Your task to perform on an android device: stop showing notifications on the lock screen Image 0: 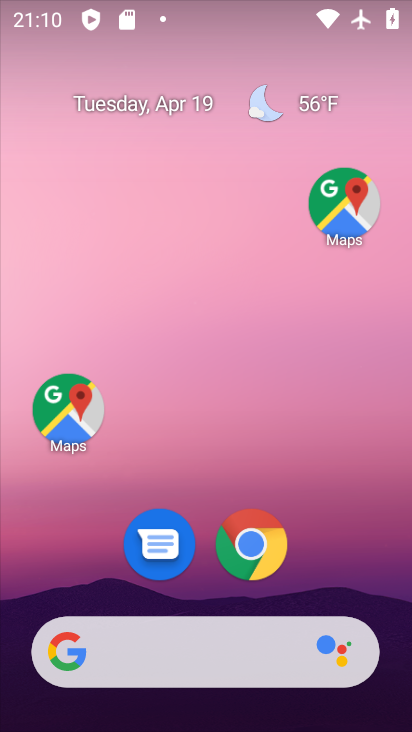
Step 0: drag from (128, 614) to (261, 63)
Your task to perform on an android device: stop showing notifications on the lock screen Image 1: 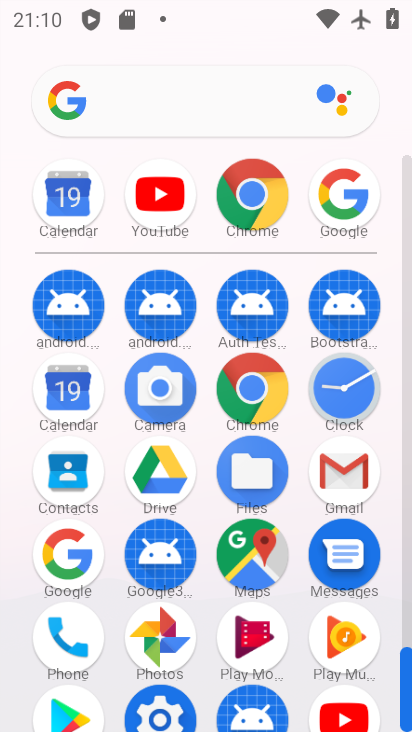
Step 1: drag from (107, 664) to (291, 170)
Your task to perform on an android device: stop showing notifications on the lock screen Image 2: 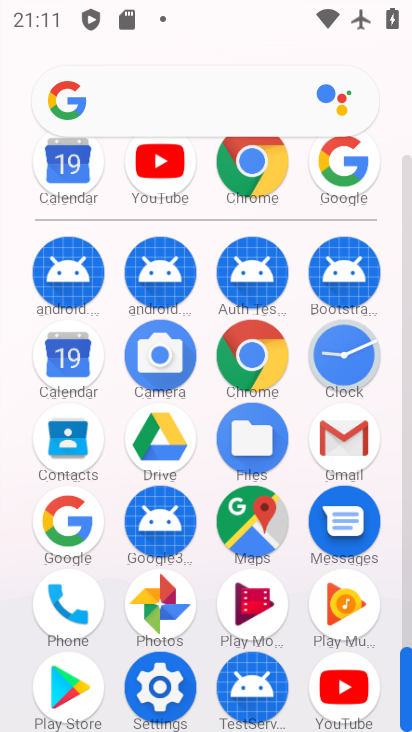
Step 2: click (154, 686)
Your task to perform on an android device: stop showing notifications on the lock screen Image 3: 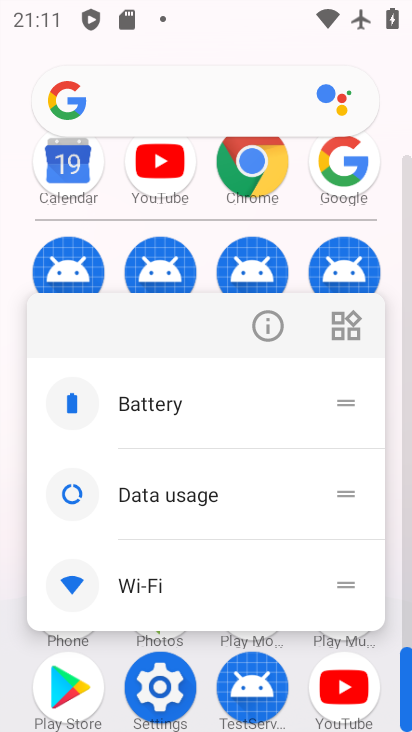
Step 3: click (159, 686)
Your task to perform on an android device: stop showing notifications on the lock screen Image 4: 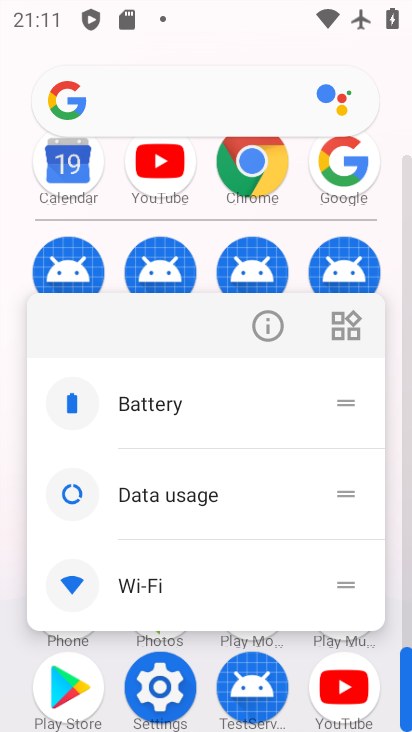
Step 4: click (163, 693)
Your task to perform on an android device: stop showing notifications on the lock screen Image 5: 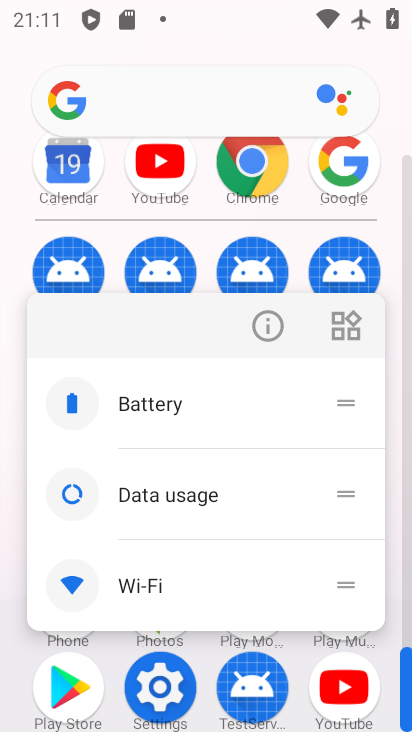
Step 5: click (162, 686)
Your task to perform on an android device: stop showing notifications on the lock screen Image 6: 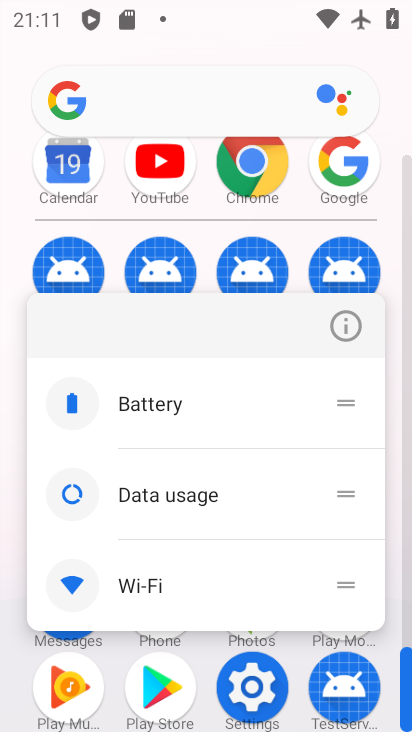
Step 6: click (247, 688)
Your task to perform on an android device: stop showing notifications on the lock screen Image 7: 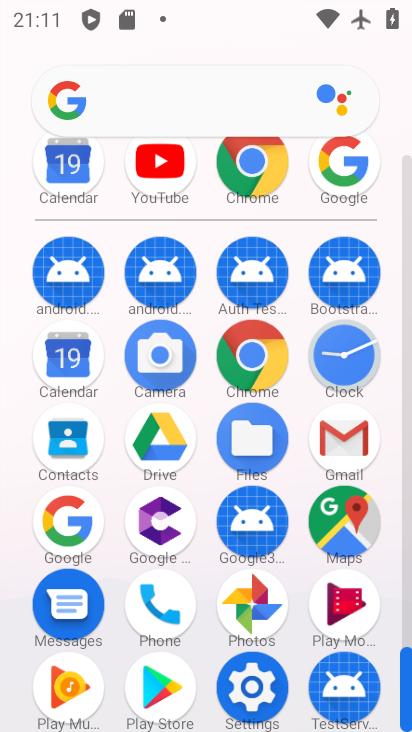
Step 7: click (251, 689)
Your task to perform on an android device: stop showing notifications on the lock screen Image 8: 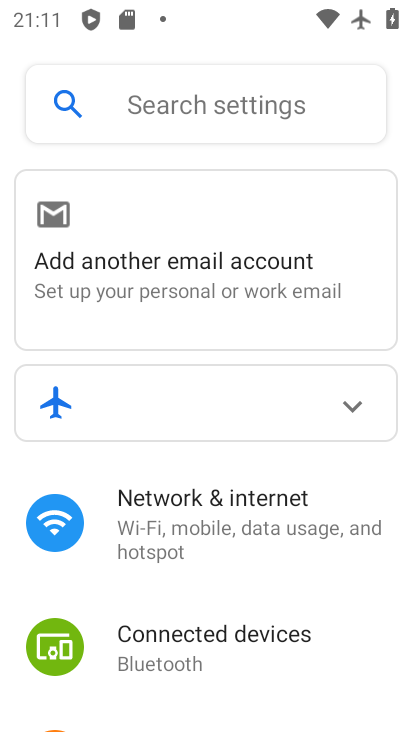
Step 8: drag from (165, 610) to (296, 150)
Your task to perform on an android device: stop showing notifications on the lock screen Image 9: 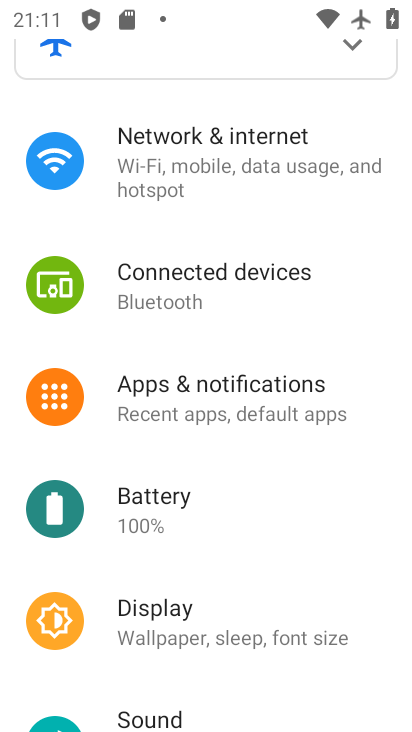
Step 9: click (234, 380)
Your task to perform on an android device: stop showing notifications on the lock screen Image 10: 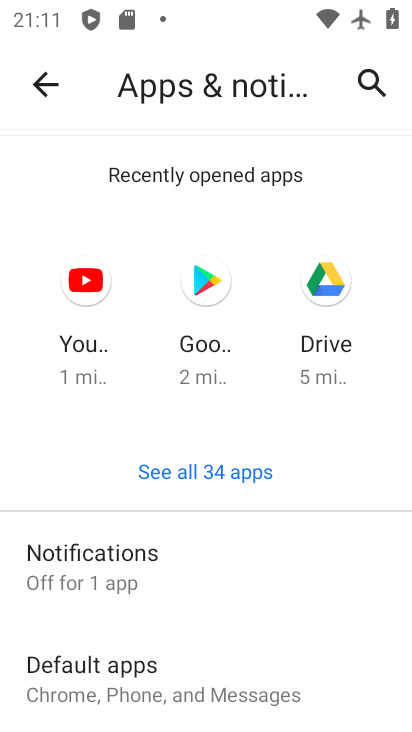
Step 10: drag from (200, 597) to (328, 175)
Your task to perform on an android device: stop showing notifications on the lock screen Image 11: 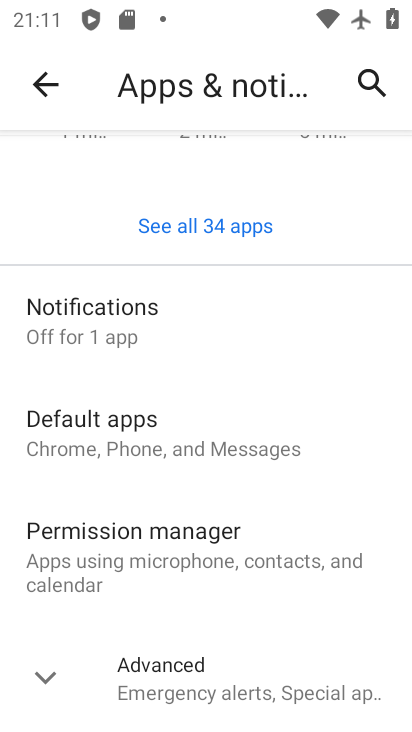
Step 11: click (123, 308)
Your task to perform on an android device: stop showing notifications on the lock screen Image 12: 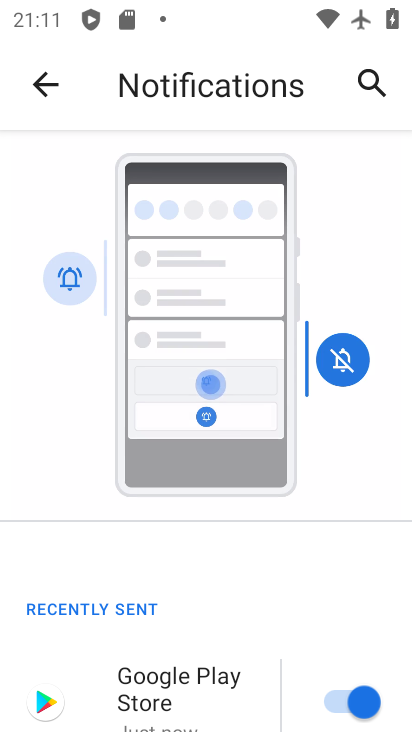
Step 12: drag from (200, 636) to (377, 116)
Your task to perform on an android device: stop showing notifications on the lock screen Image 13: 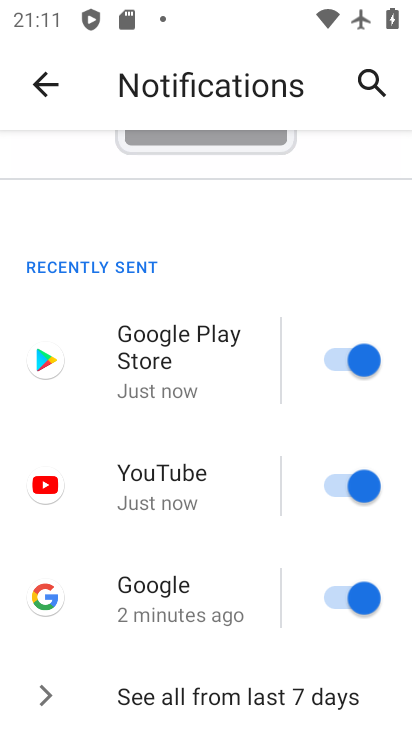
Step 13: drag from (251, 554) to (367, 135)
Your task to perform on an android device: stop showing notifications on the lock screen Image 14: 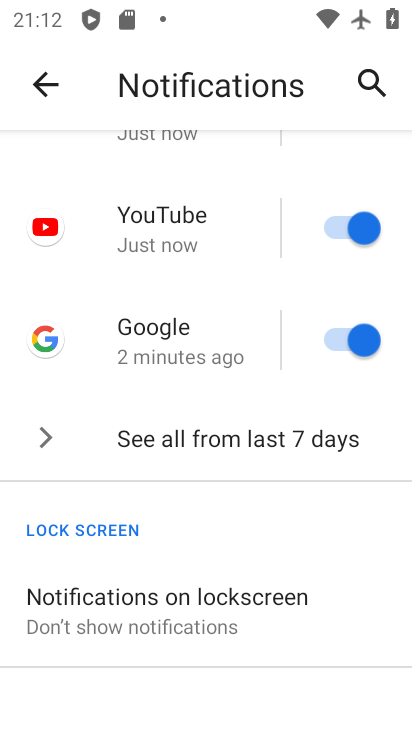
Step 14: click (191, 584)
Your task to perform on an android device: stop showing notifications on the lock screen Image 15: 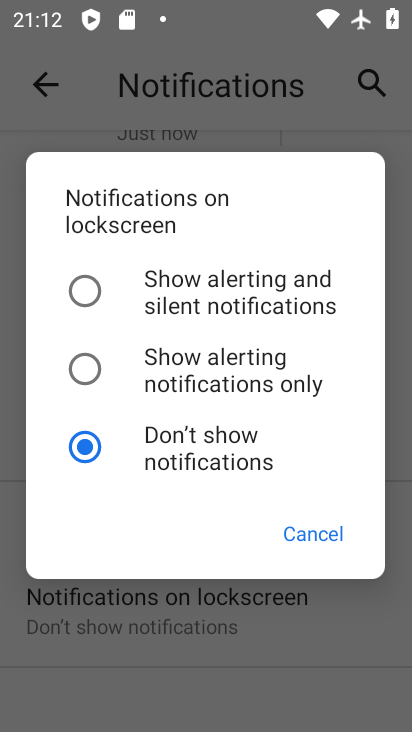
Step 15: task complete